Your task to perform on an android device: What is the speed of a tiger? Image 0: 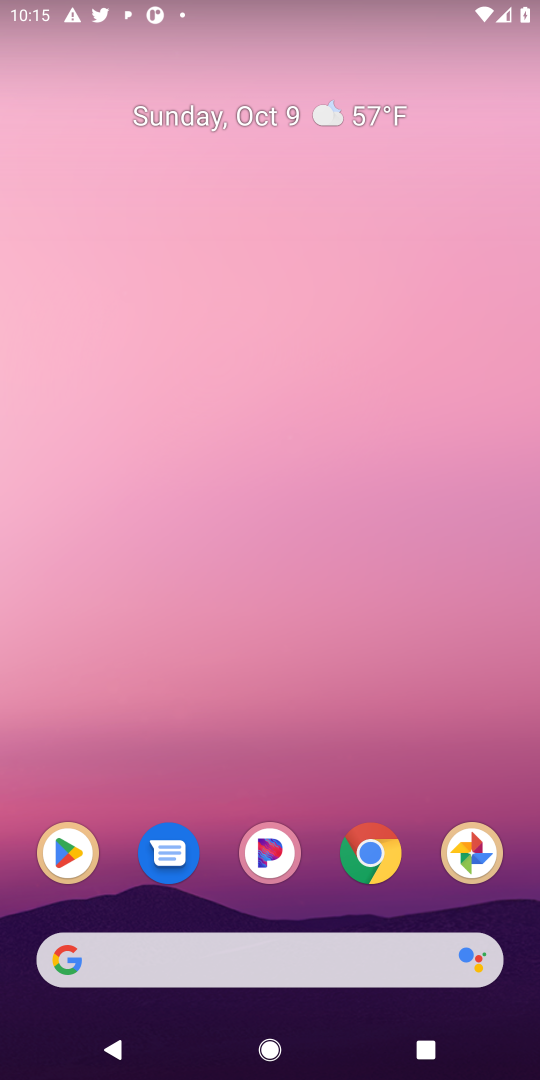
Step 0: click (362, 866)
Your task to perform on an android device: What is the speed of a tiger? Image 1: 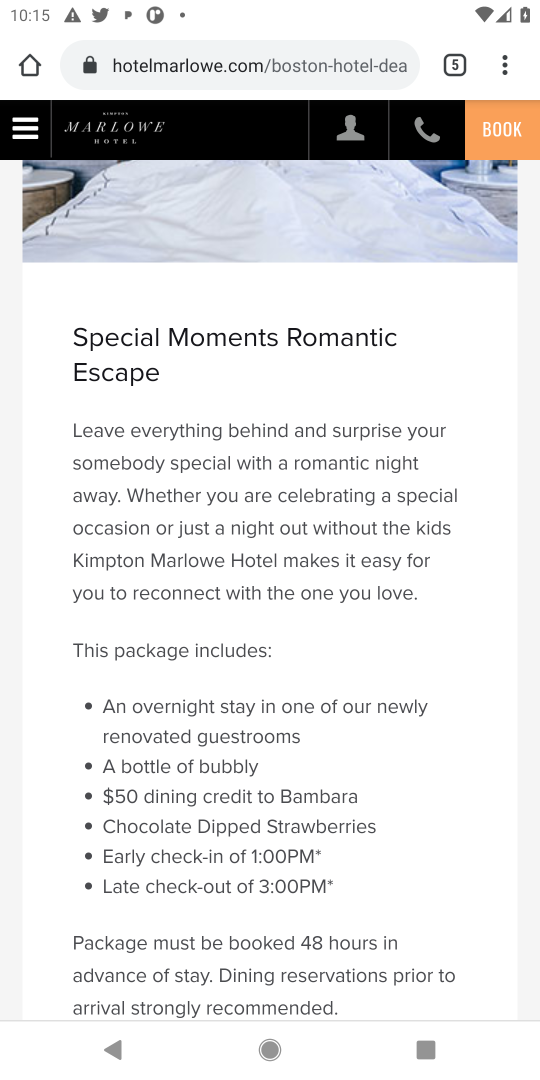
Step 1: click (278, 39)
Your task to perform on an android device: What is the speed of a tiger? Image 2: 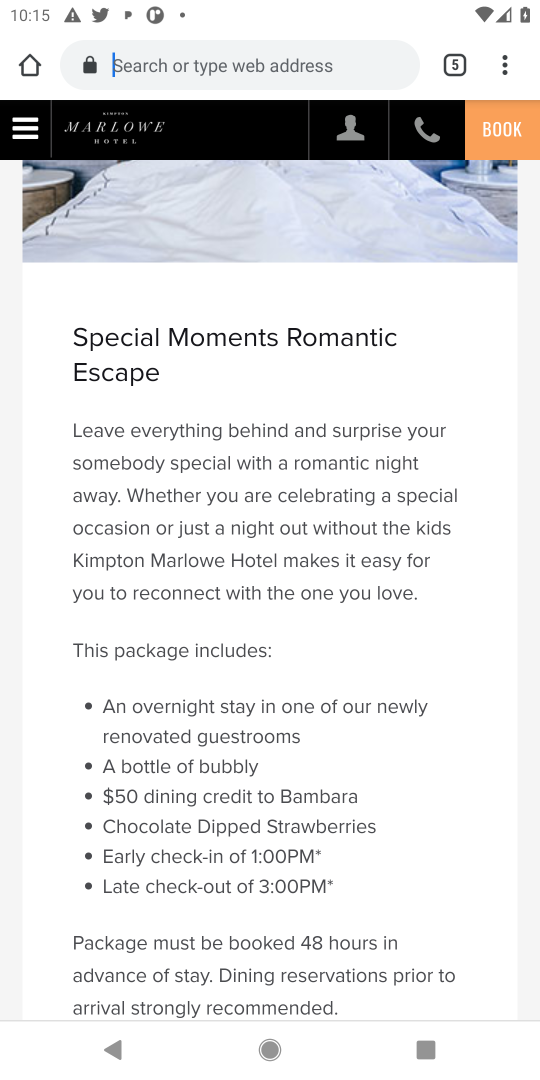
Step 2: click (263, 87)
Your task to perform on an android device: What is the speed of a tiger? Image 3: 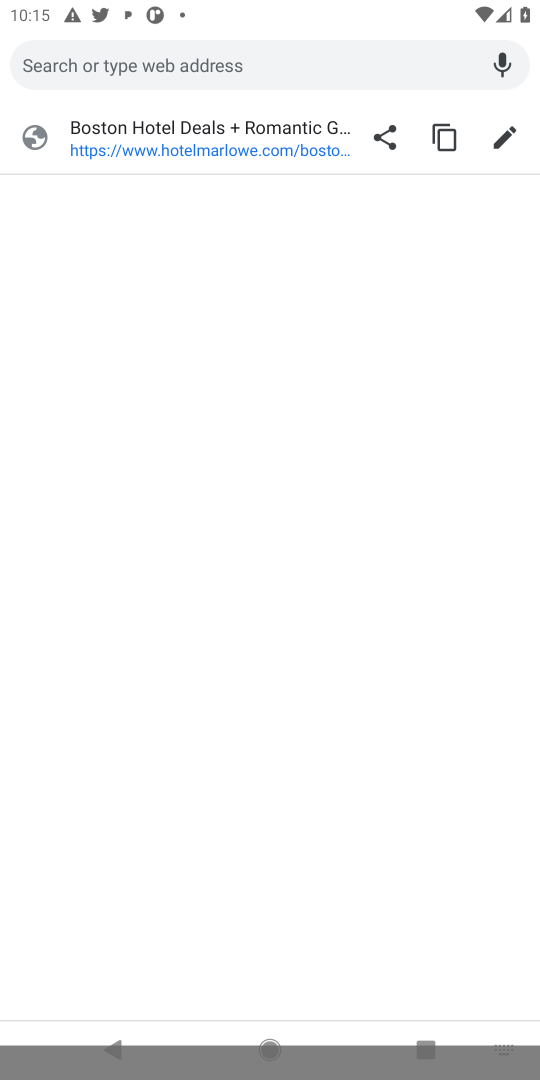
Step 3: click (257, 74)
Your task to perform on an android device: What is the speed of a tiger? Image 4: 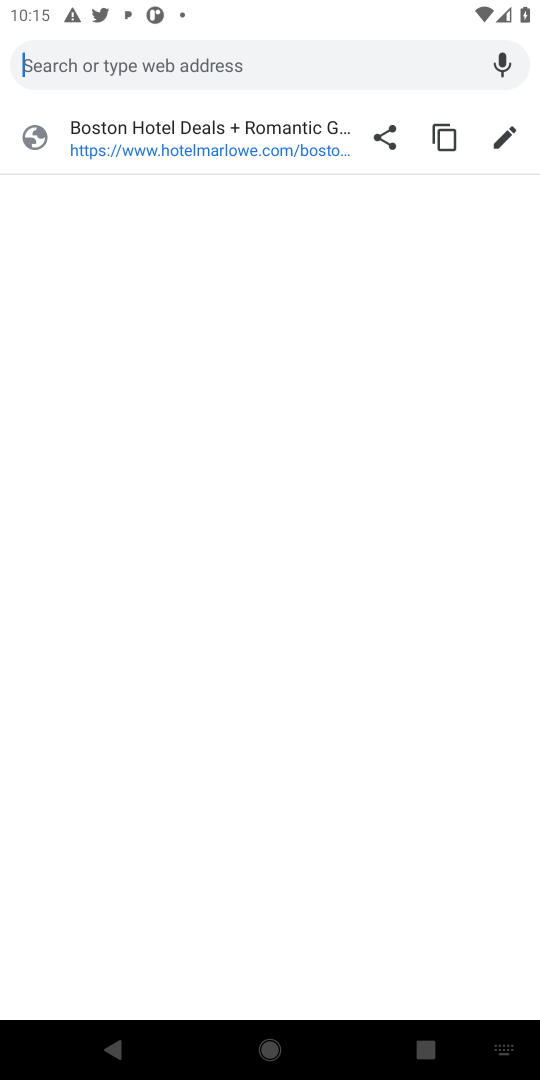
Step 4: type "what is the speed of a tiger"
Your task to perform on an android device: What is the speed of a tiger? Image 5: 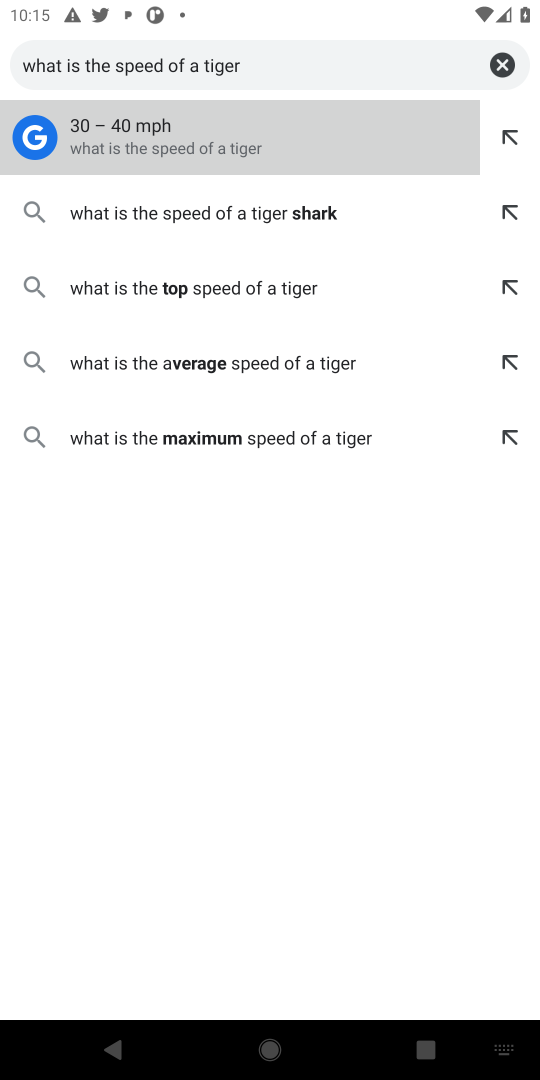
Step 5: type ""
Your task to perform on an android device: What is the speed of a tiger? Image 6: 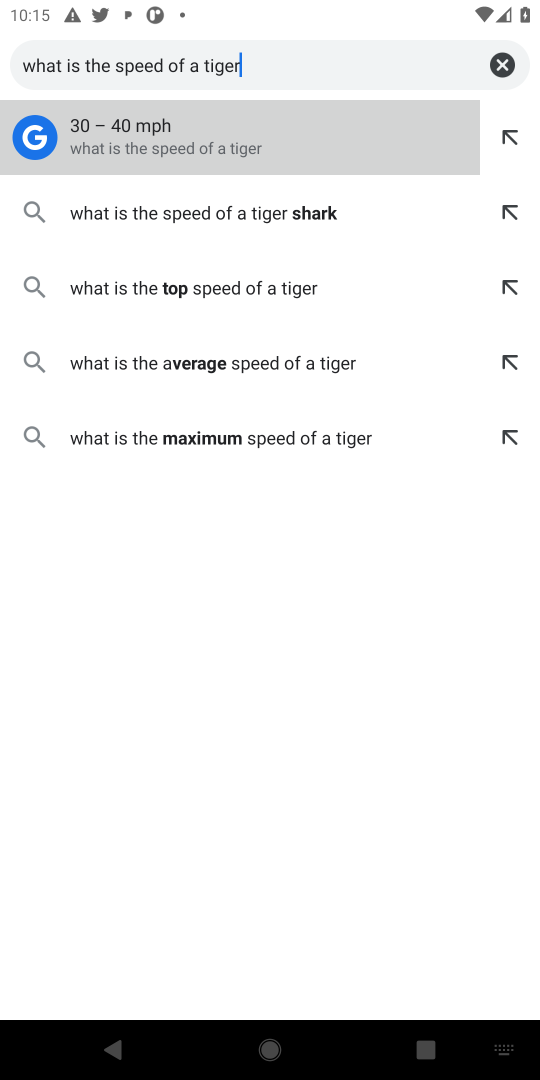
Step 6: press enter
Your task to perform on an android device: What is the speed of a tiger? Image 7: 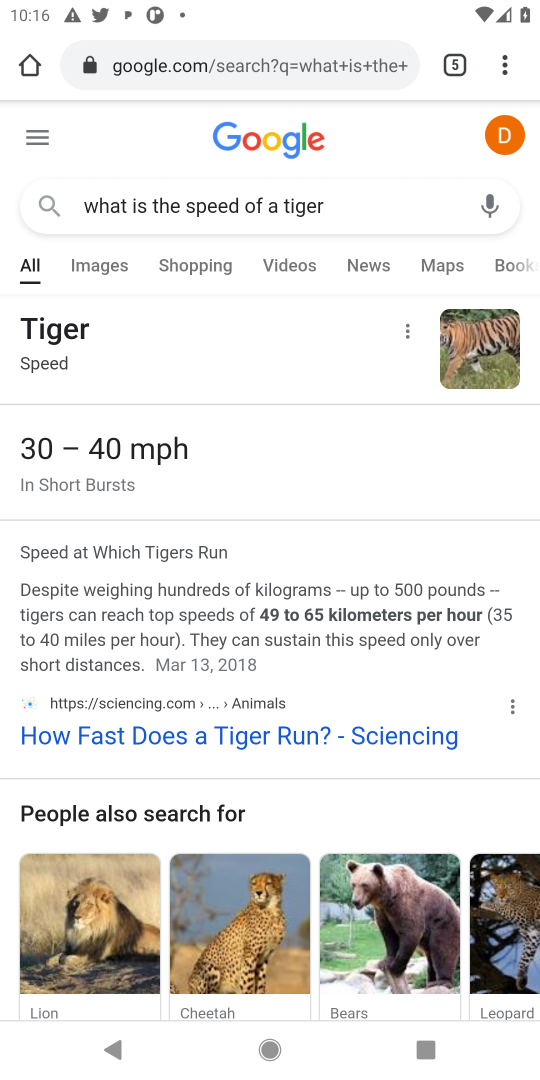
Step 7: drag from (410, 683) to (407, 341)
Your task to perform on an android device: What is the speed of a tiger? Image 8: 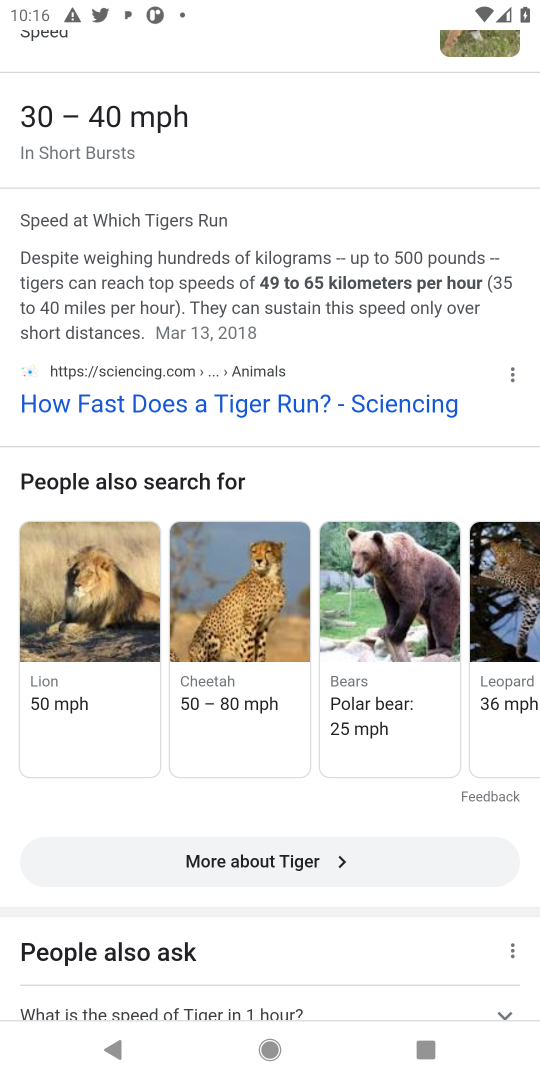
Step 8: drag from (389, 661) to (484, 223)
Your task to perform on an android device: What is the speed of a tiger? Image 9: 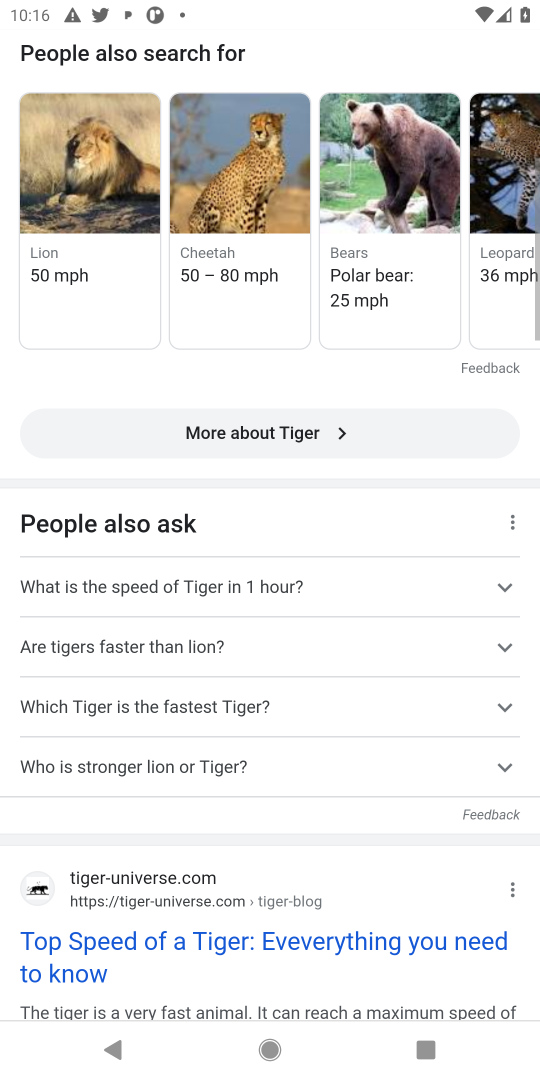
Step 9: drag from (389, 680) to (451, 168)
Your task to perform on an android device: What is the speed of a tiger? Image 10: 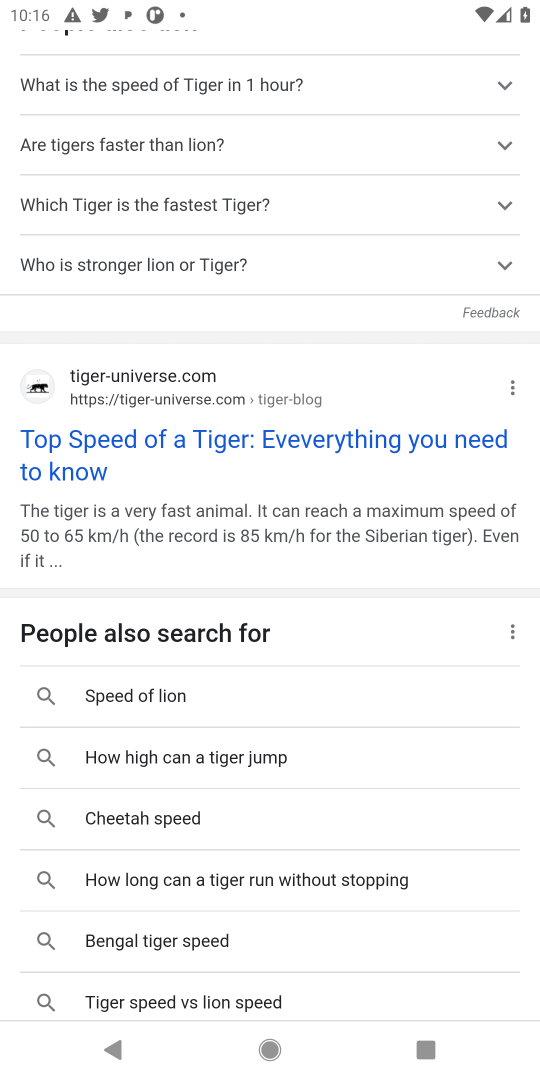
Step 10: drag from (292, 156) to (291, 960)
Your task to perform on an android device: What is the speed of a tiger? Image 11: 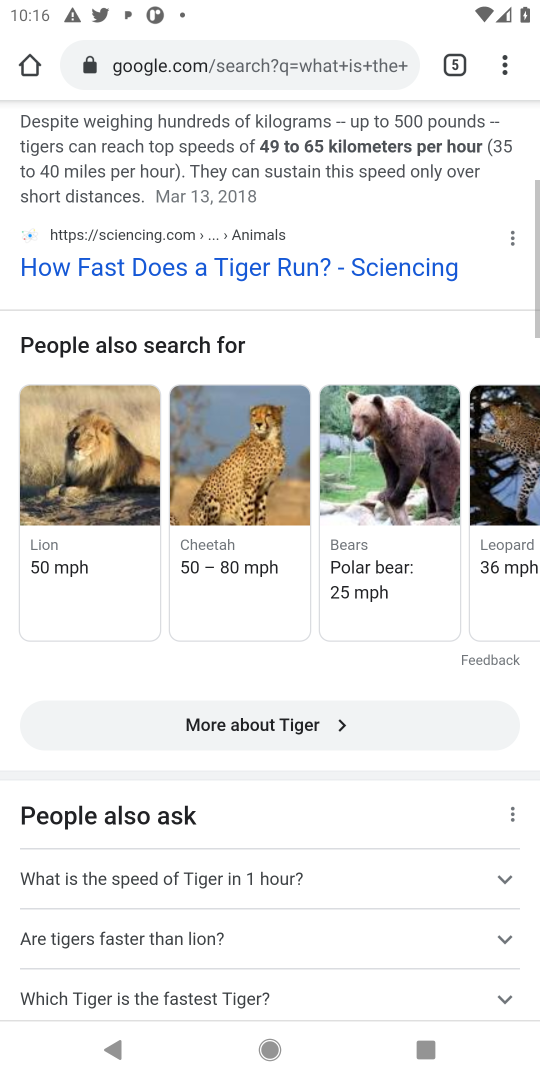
Step 11: drag from (259, 293) to (270, 816)
Your task to perform on an android device: What is the speed of a tiger? Image 12: 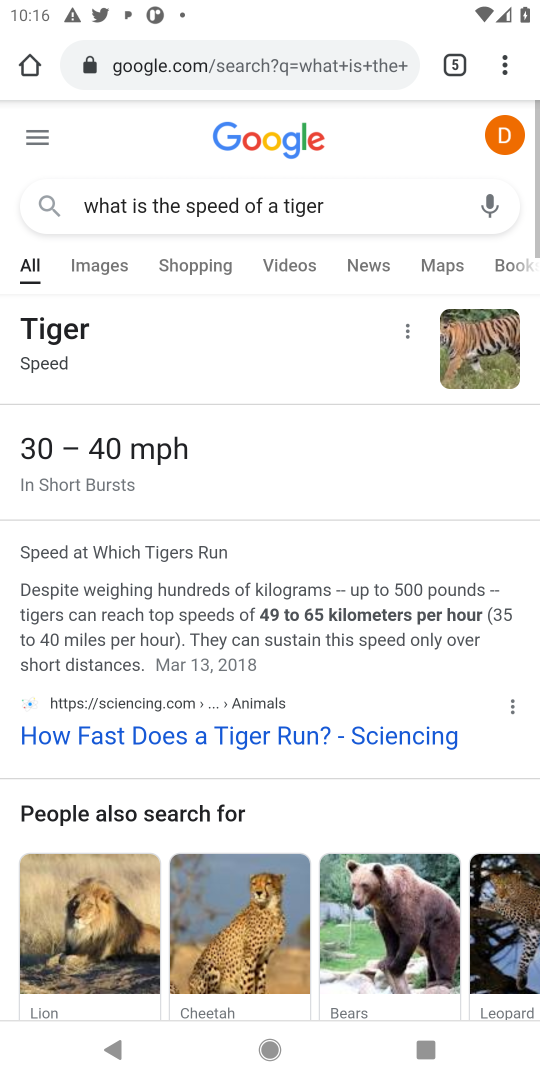
Step 12: drag from (263, 388) to (250, 615)
Your task to perform on an android device: What is the speed of a tiger? Image 13: 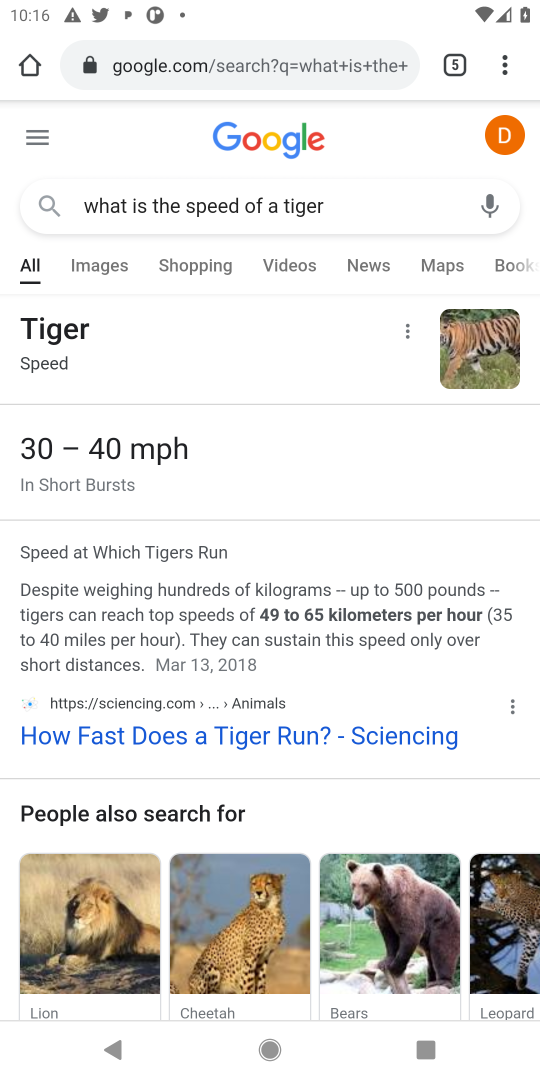
Step 13: drag from (112, 362) to (147, 886)
Your task to perform on an android device: What is the speed of a tiger? Image 14: 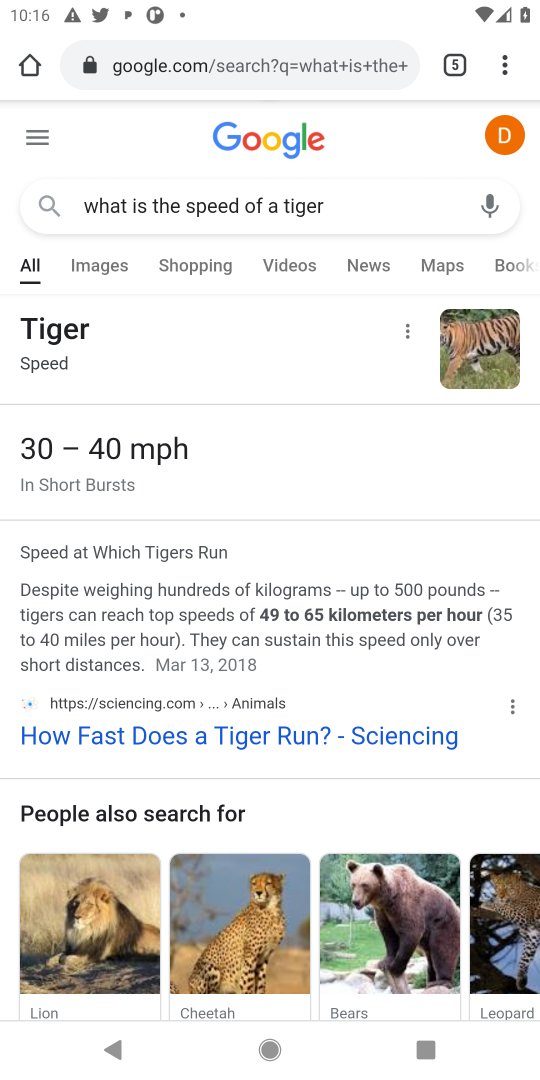
Step 14: click (176, 727)
Your task to perform on an android device: What is the speed of a tiger? Image 15: 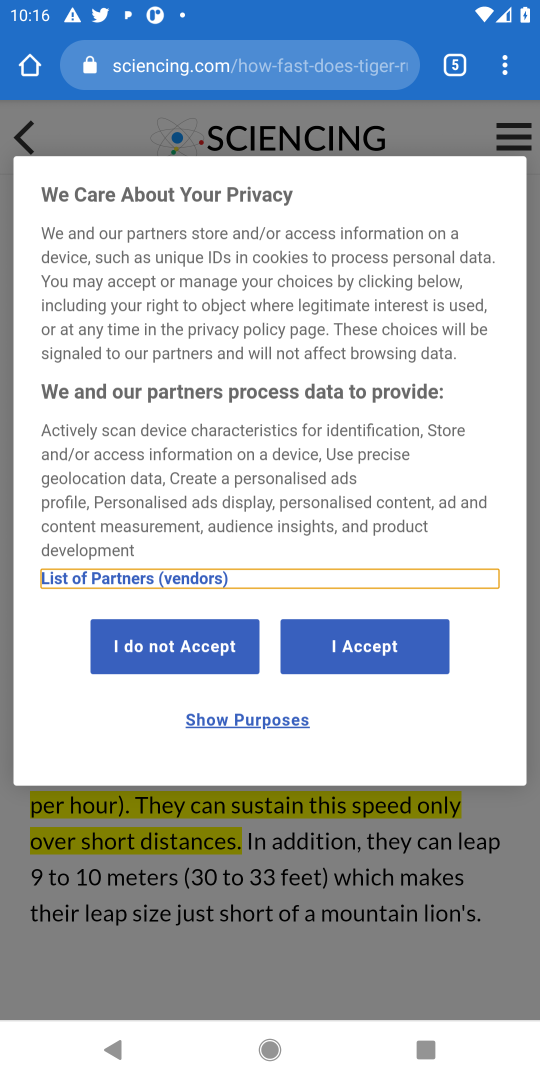
Step 15: drag from (203, 831) to (213, 548)
Your task to perform on an android device: What is the speed of a tiger? Image 16: 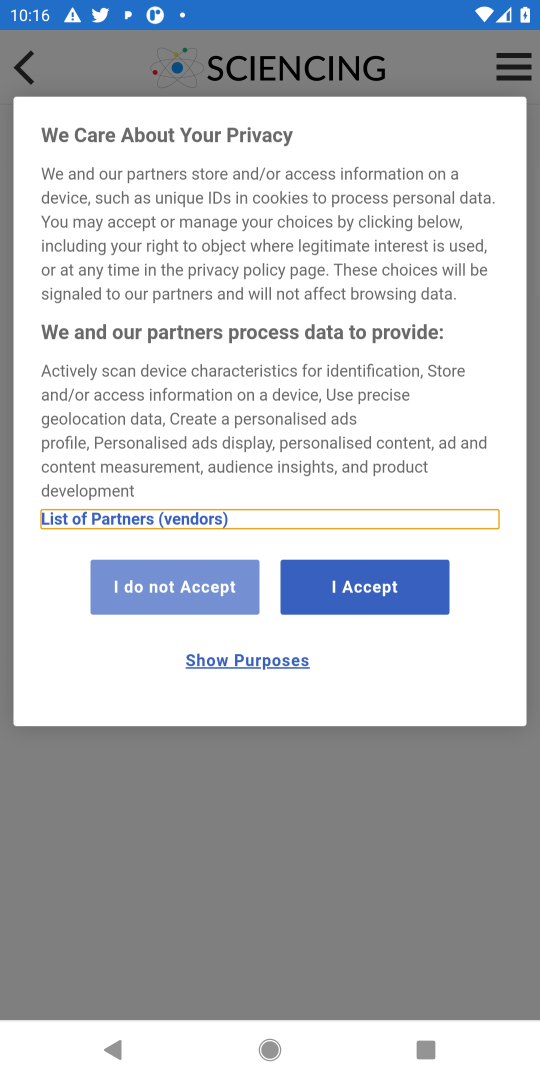
Step 16: click (201, 663)
Your task to perform on an android device: What is the speed of a tiger? Image 17: 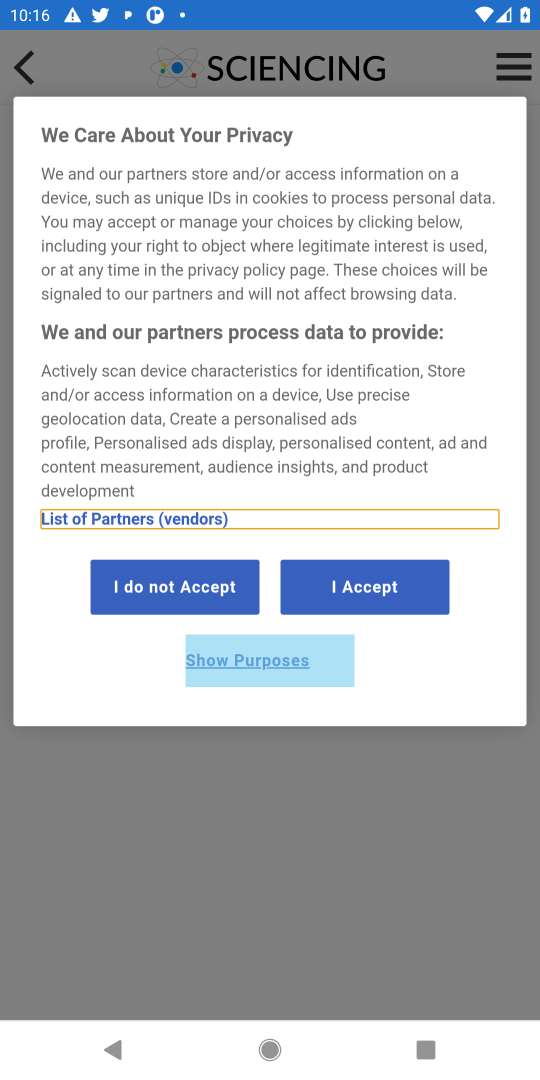
Step 17: click (188, 569)
Your task to perform on an android device: What is the speed of a tiger? Image 18: 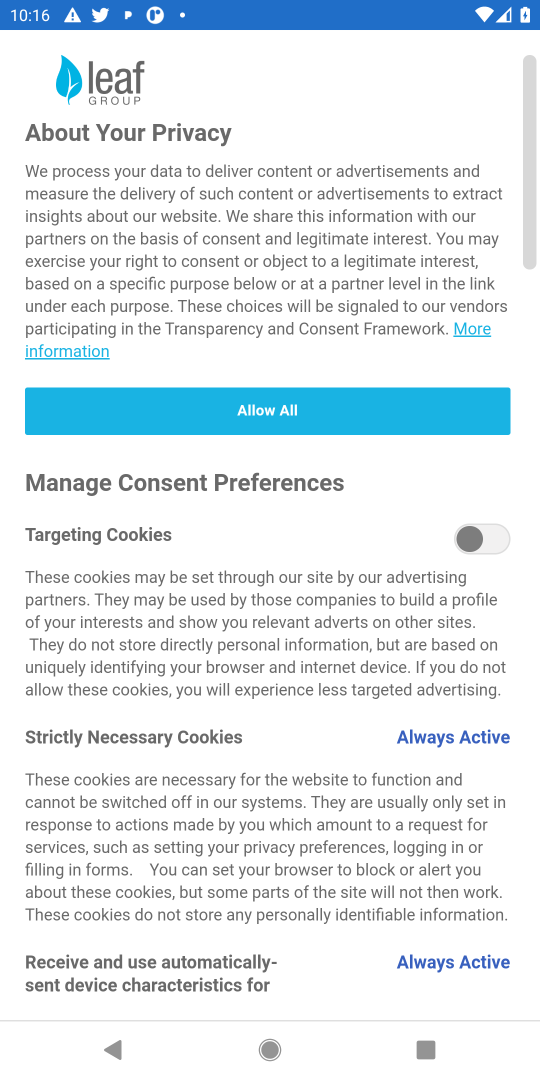
Step 18: drag from (299, 610) to (290, 324)
Your task to perform on an android device: What is the speed of a tiger? Image 19: 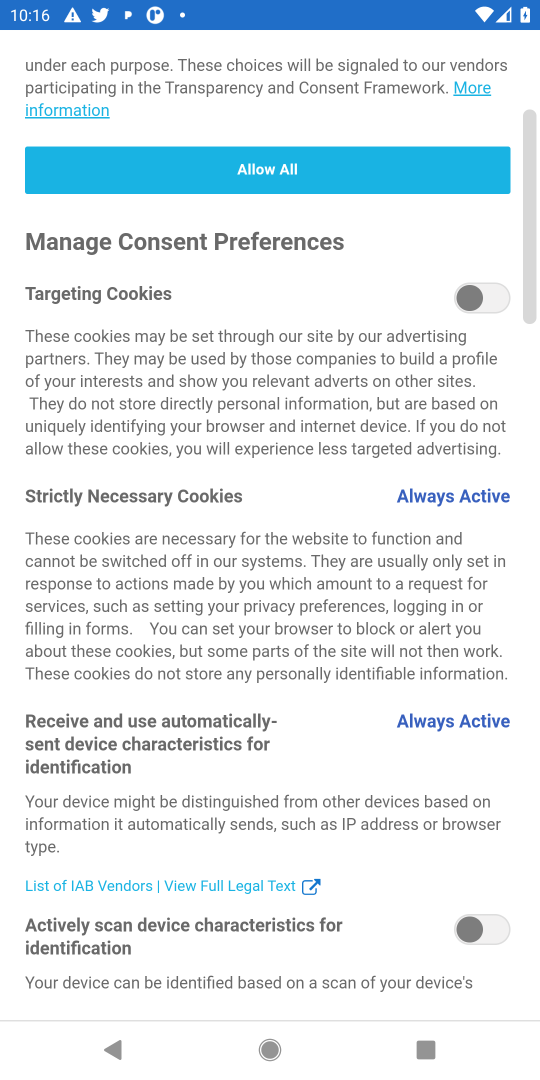
Step 19: click (290, 422)
Your task to perform on an android device: What is the speed of a tiger? Image 20: 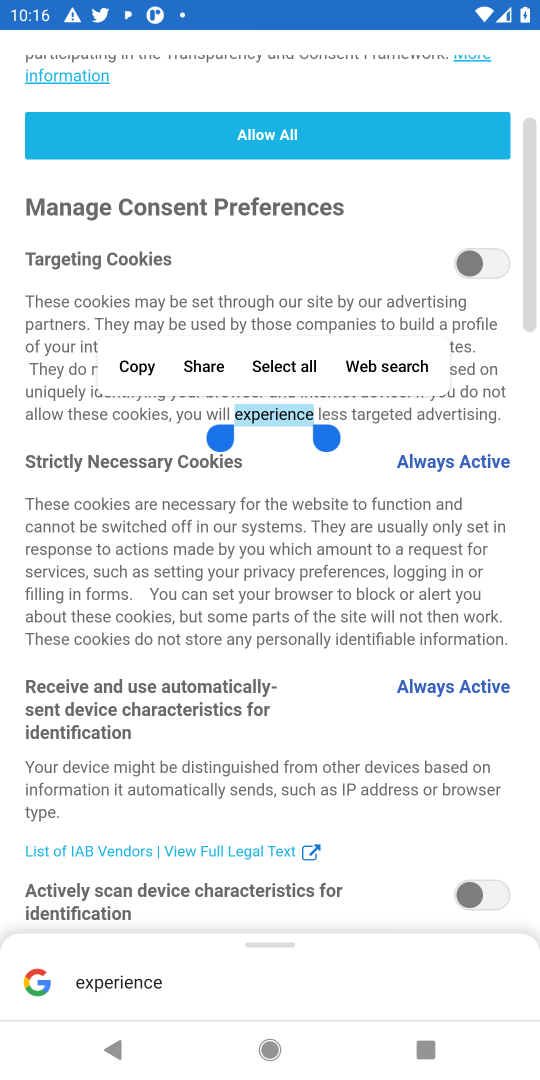
Step 20: click (246, 128)
Your task to perform on an android device: What is the speed of a tiger? Image 21: 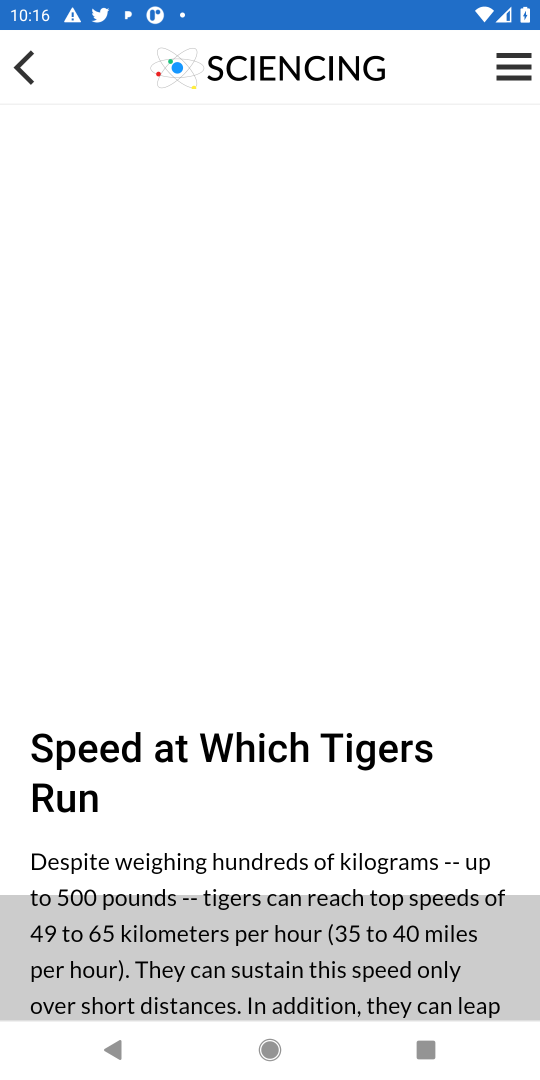
Step 21: drag from (345, 164) to (396, 203)
Your task to perform on an android device: What is the speed of a tiger? Image 22: 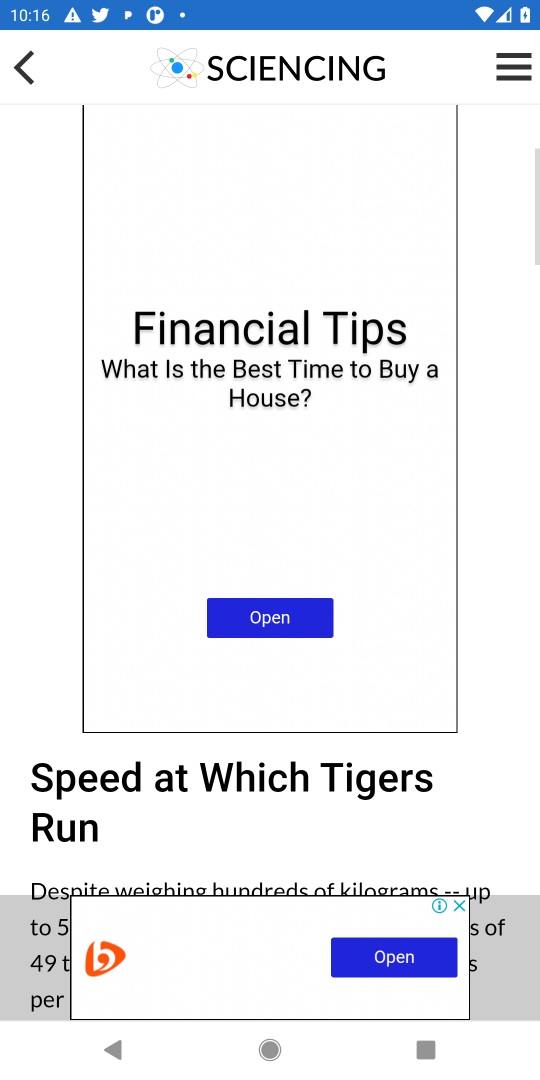
Step 22: drag from (358, 599) to (328, 187)
Your task to perform on an android device: What is the speed of a tiger? Image 23: 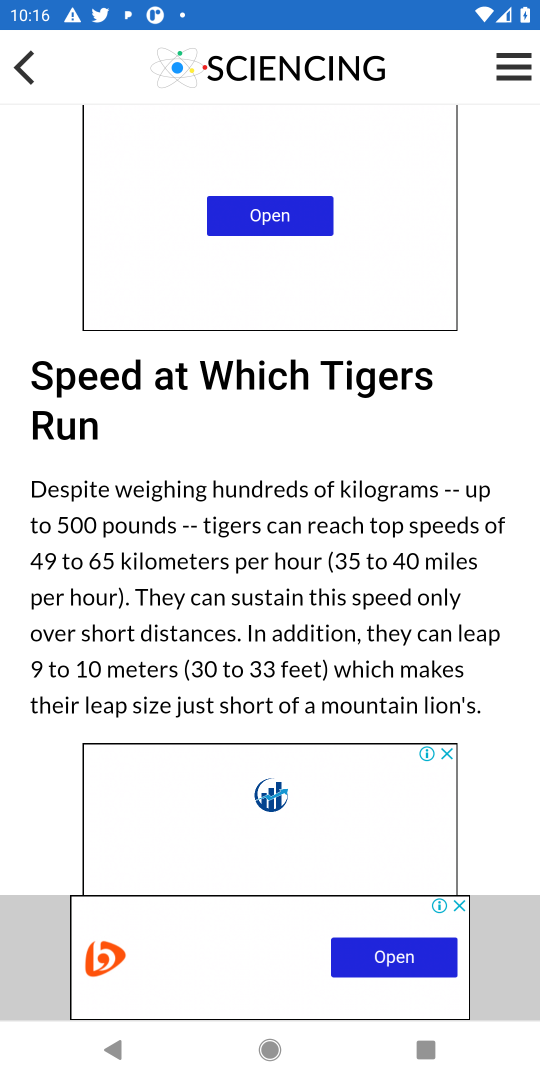
Step 23: drag from (386, 709) to (349, 40)
Your task to perform on an android device: What is the speed of a tiger? Image 24: 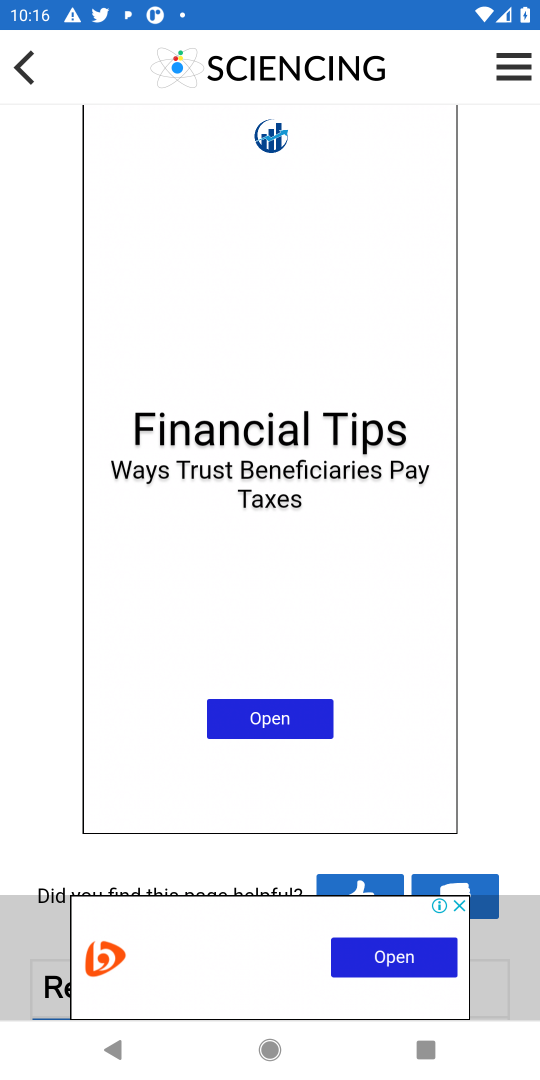
Step 24: drag from (393, 872) to (404, 142)
Your task to perform on an android device: What is the speed of a tiger? Image 25: 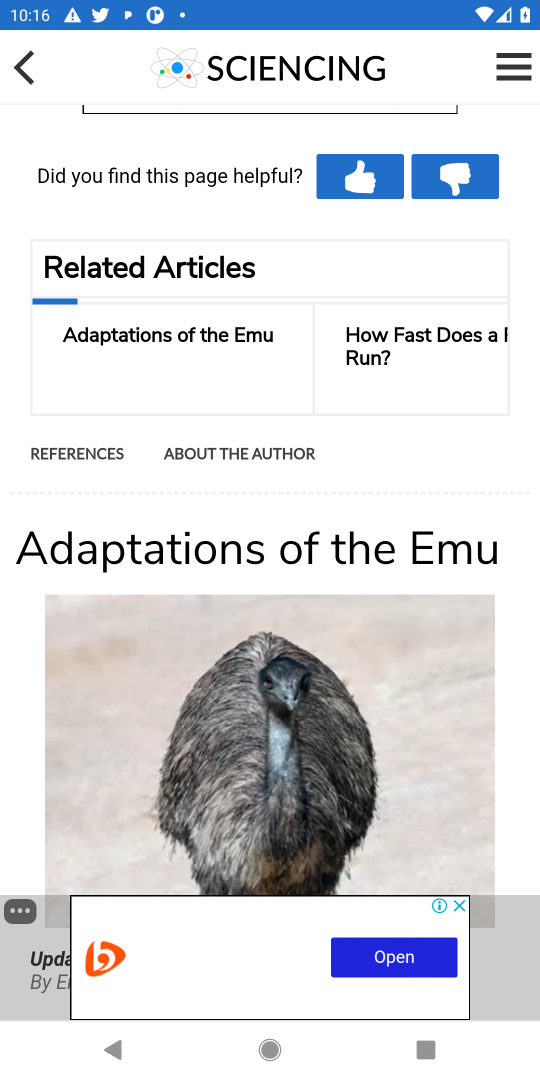
Step 25: drag from (352, 625) to (332, 101)
Your task to perform on an android device: What is the speed of a tiger? Image 26: 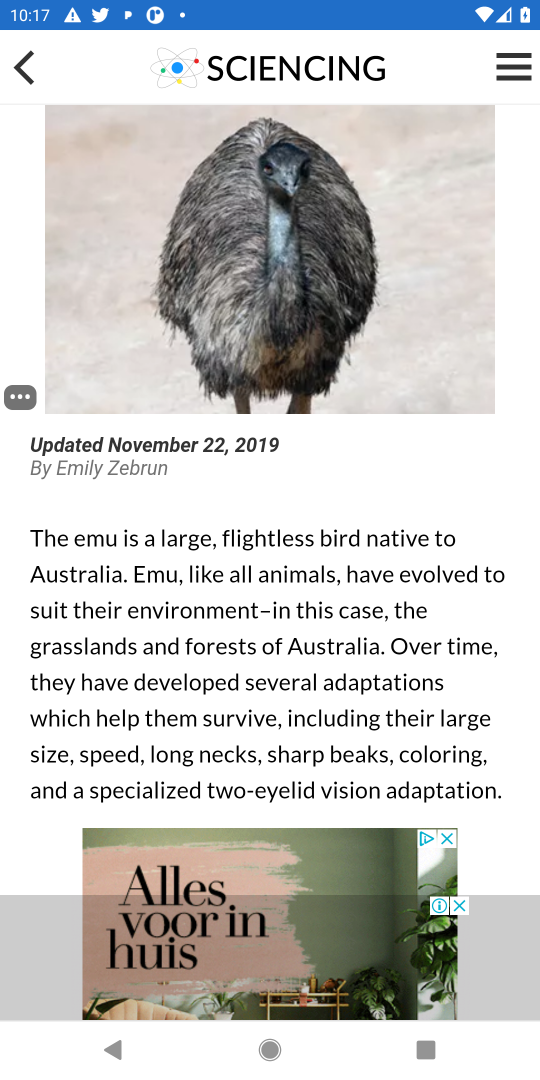
Step 26: press back button
Your task to perform on an android device: What is the speed of a tiger? Image 27: 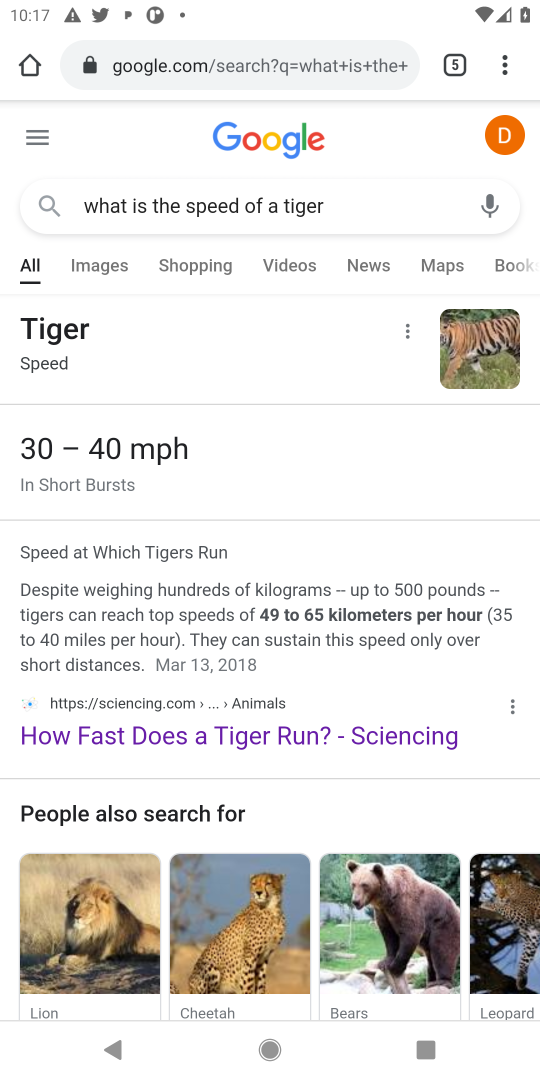
Step 27: drag from (426, 749) to (374, 220)
Your task to perform on an android device: What is the speed of a tiger? Image 28: 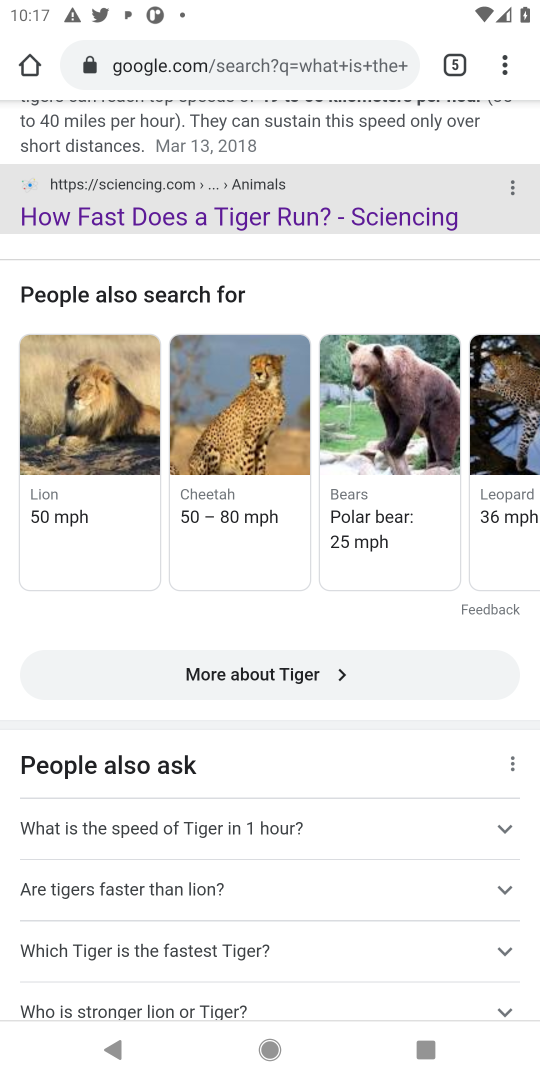
Step 28: drag from (332, 764) to (332, 145)
Your task to perform on an android device: What is the speed of a tiger? Image 29: 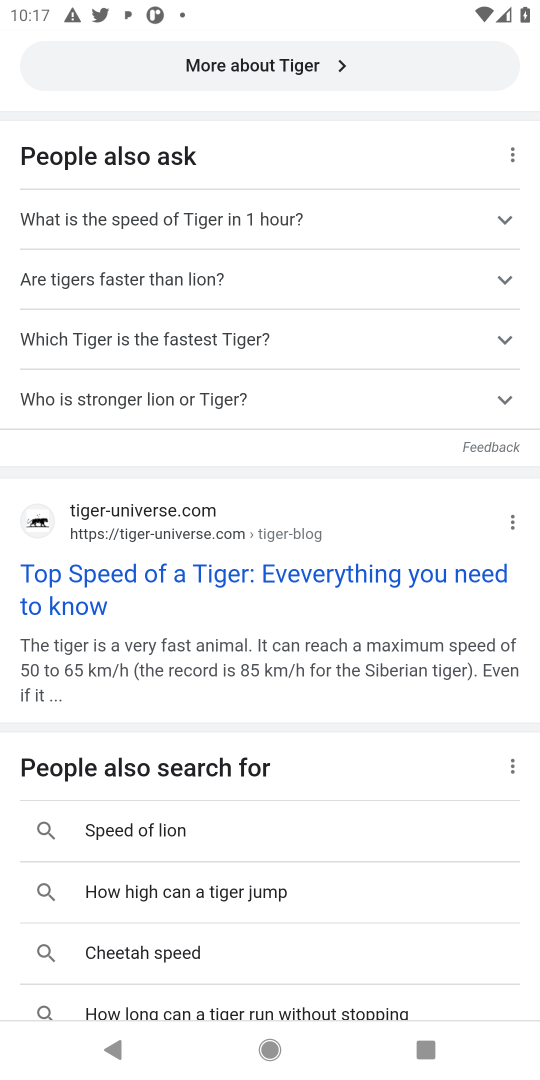
Step 29: click (252, 582)
Your task to perform on an android device: What is the speed of a tiger? Image 30: 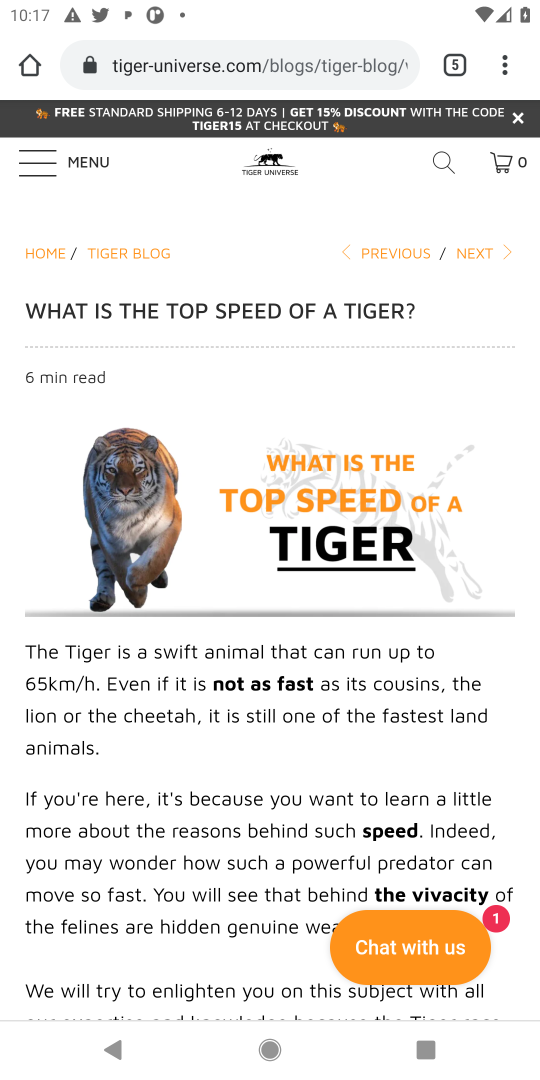
Step 30: drag from (350, 846) to (359, 436)
Your task to perform on an android device: What is the speed of a tiger? Image 31: 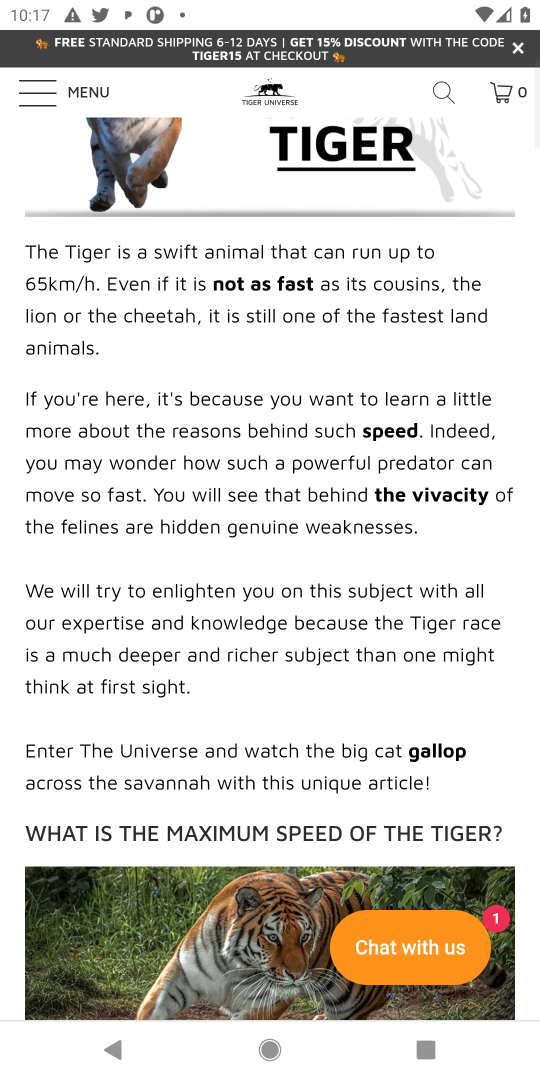
Step 31: drag from (356, 744) to (306, 366)
Your task to perform on an android device: What is the speed of a tiger? Image 32: 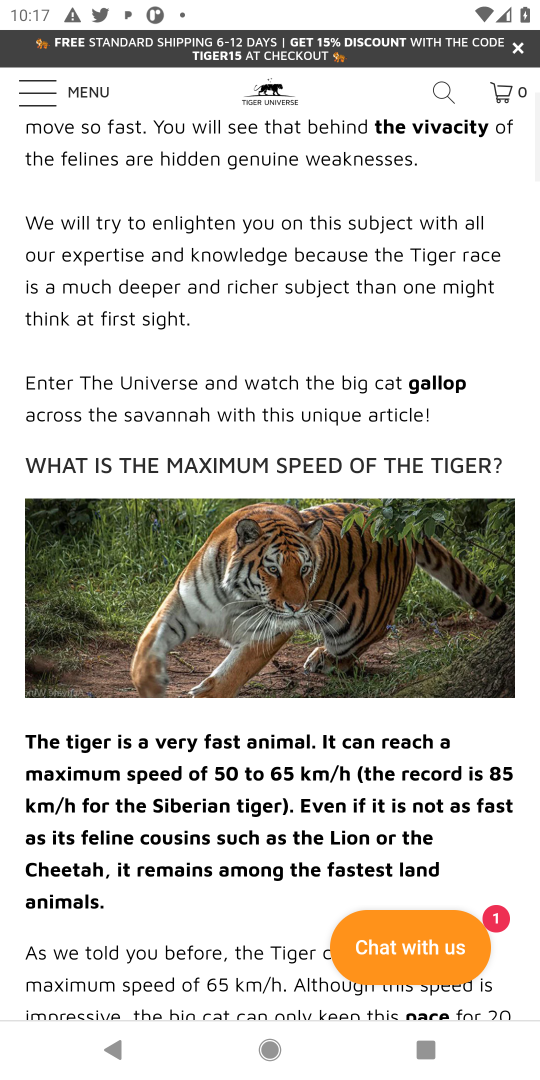
Step 32: drag from (304, 719) to (296, 272)
Your task to perform on an android device: What is the speed of a tiger? Image 33: 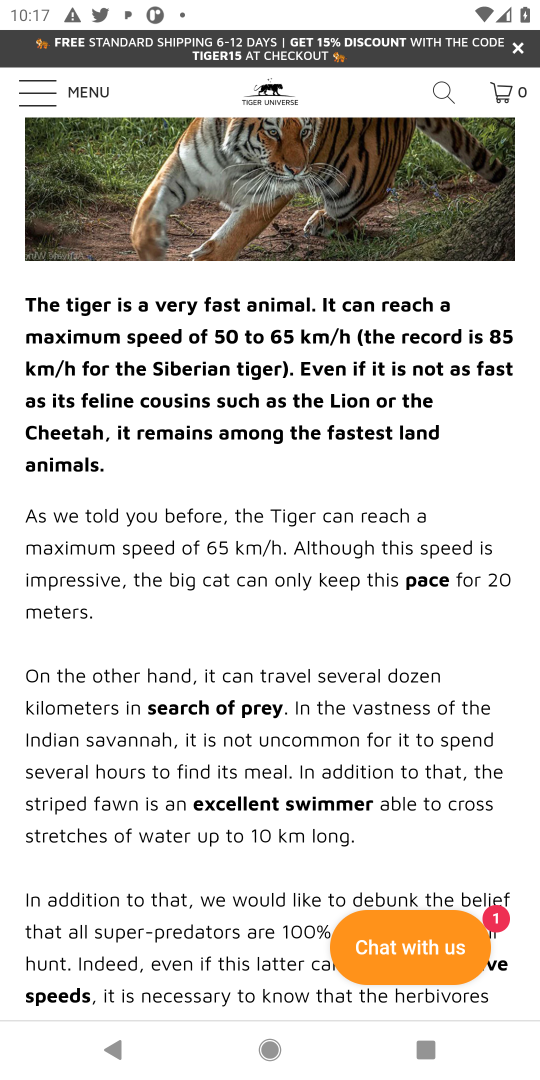
Step 33: drag from (344, 762) to (330, 278)
Your task to perform on an android device: What is the speed of a tiger? Image 34: 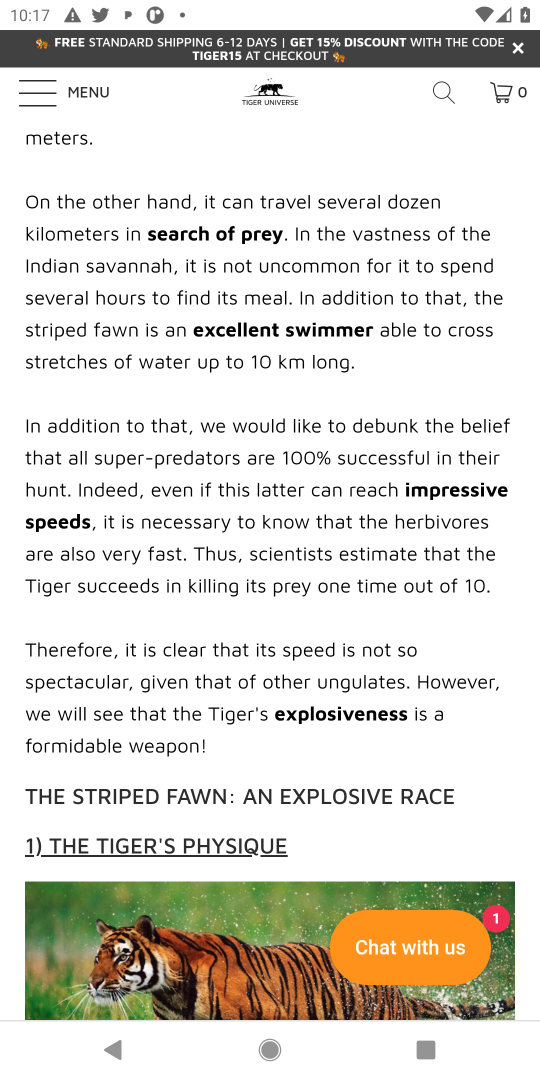
Step 34: drag from (375, 563) to (345, 235)
Your task to perform on an android device: What is the speed of a tiger? Image 35: 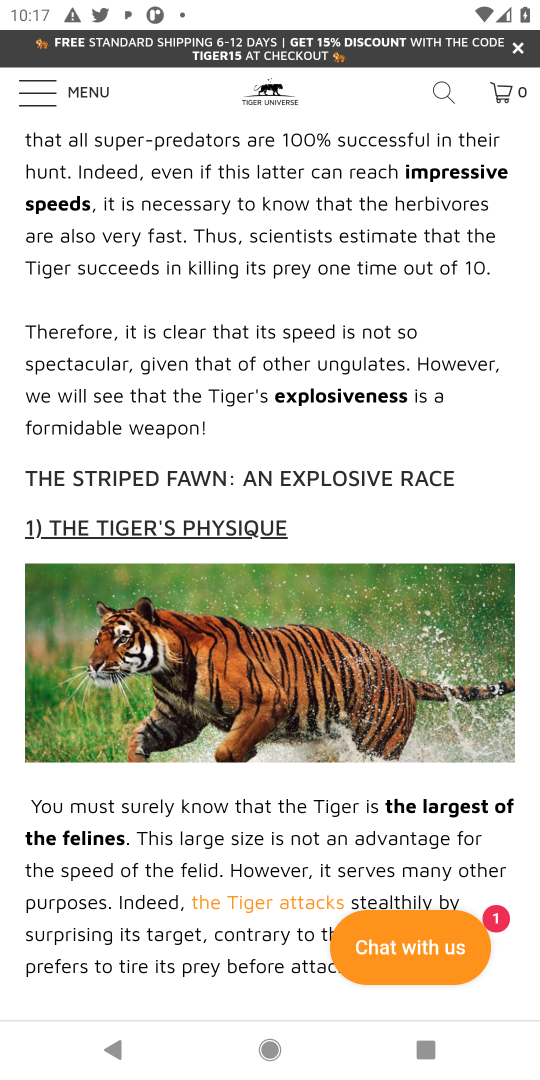
Step 35: drag from (355, 853) to (346, 45)
Your task to perform on an android device: What is the speed of a tiger? Image 36: 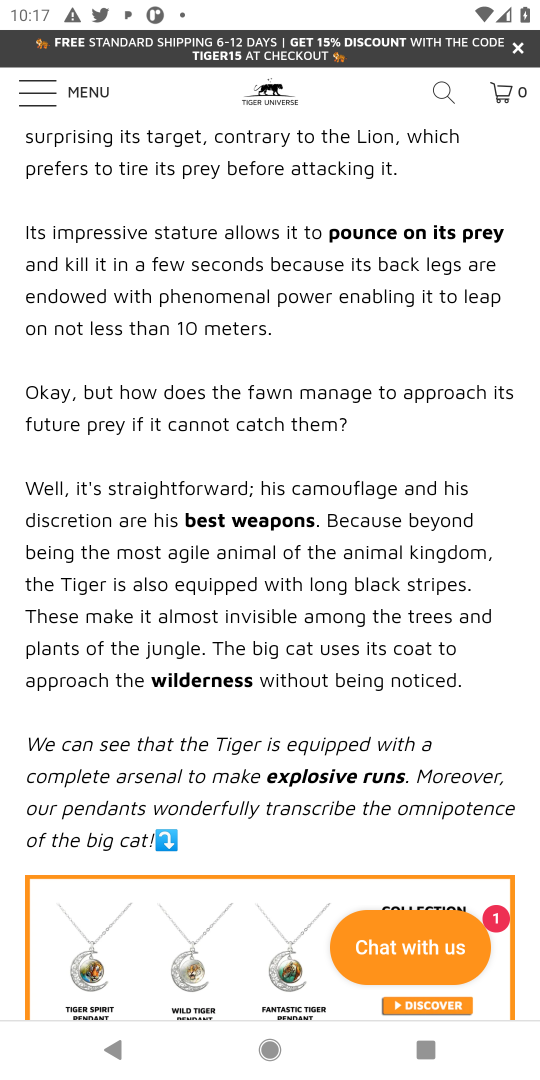
Step 36: drag from (225, 1007) to (284, 61)
Your task to perform on an android device: What is the speed of a tiger? Image 37: 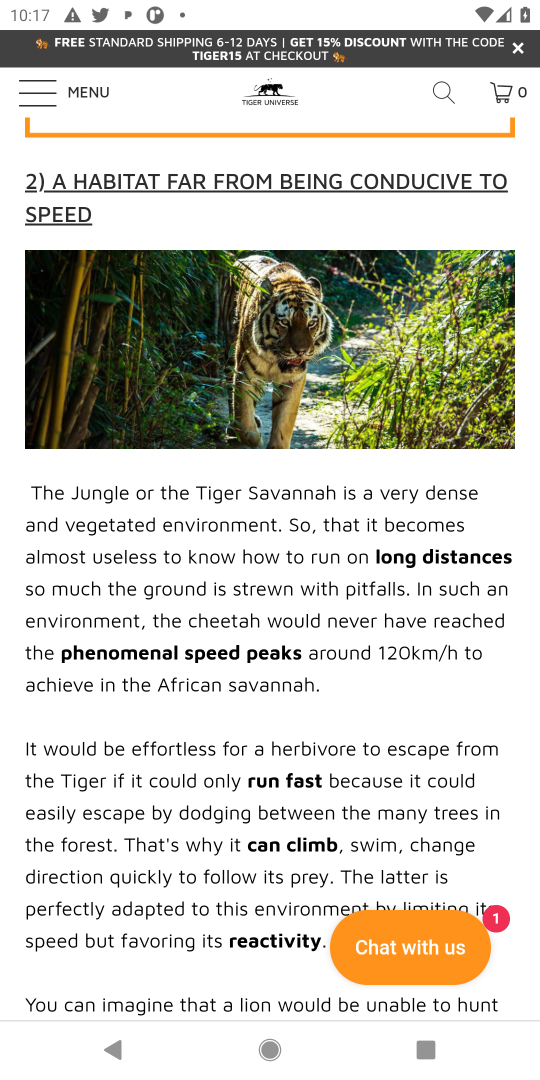
Step 37: drag from (258, 978) to (277, 233)
Your task to perform on an android device: What is the speed of a tiger? Image 38: 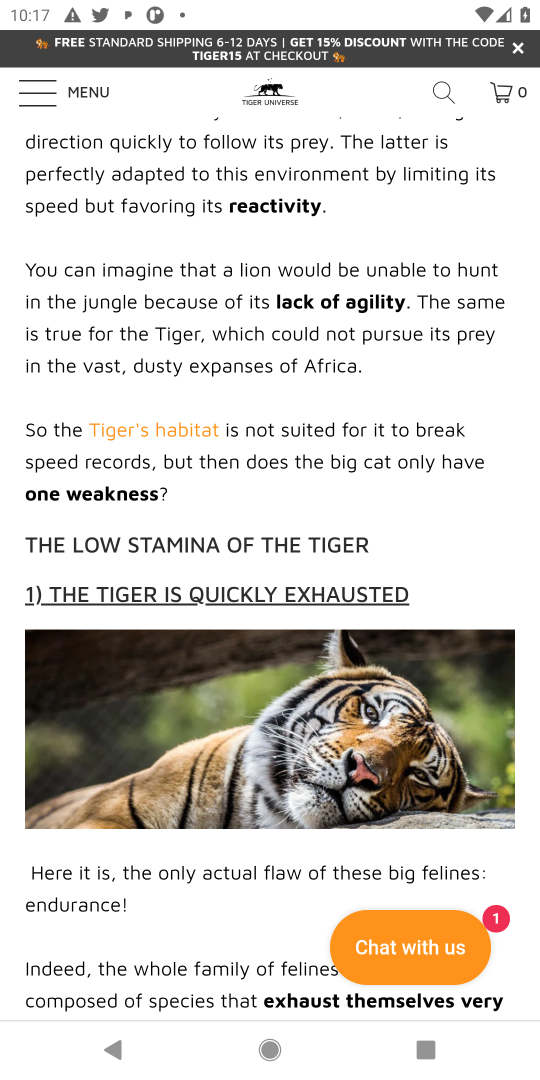
Step 38: drag from (339, 746) to (484, 204)
Your task to perform on an android device: What is the speed of a tiger? Image 39: 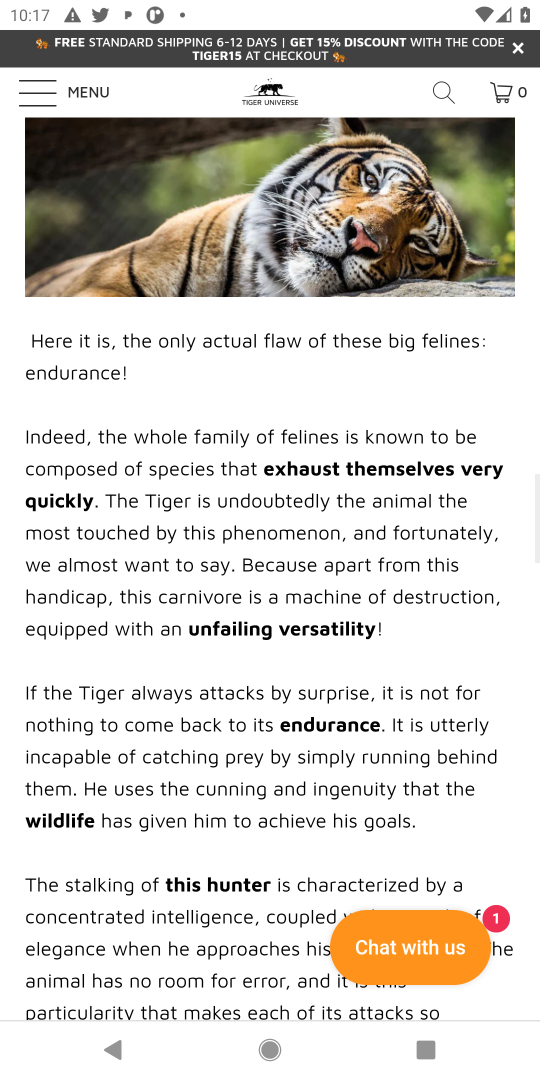
Step 39: drag from (459, 613) to (500, 215)
Your task to perform on an android device: What is the speed of a tiger? Image 40: 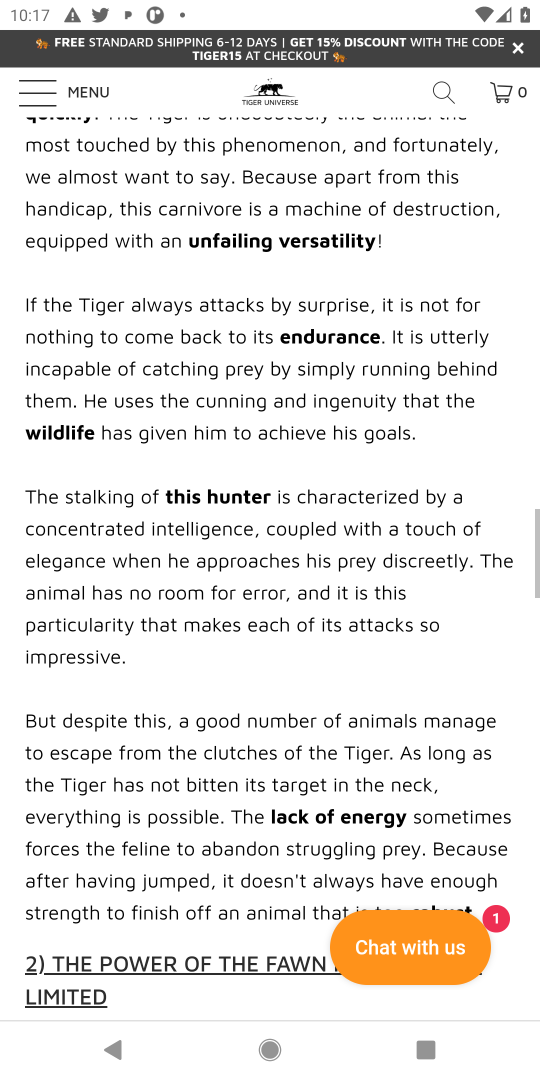
Step 40: drag from (414, 656) to (437, 194)
Your task to perform on an android device: What is the speed of a tiger? Image 41: 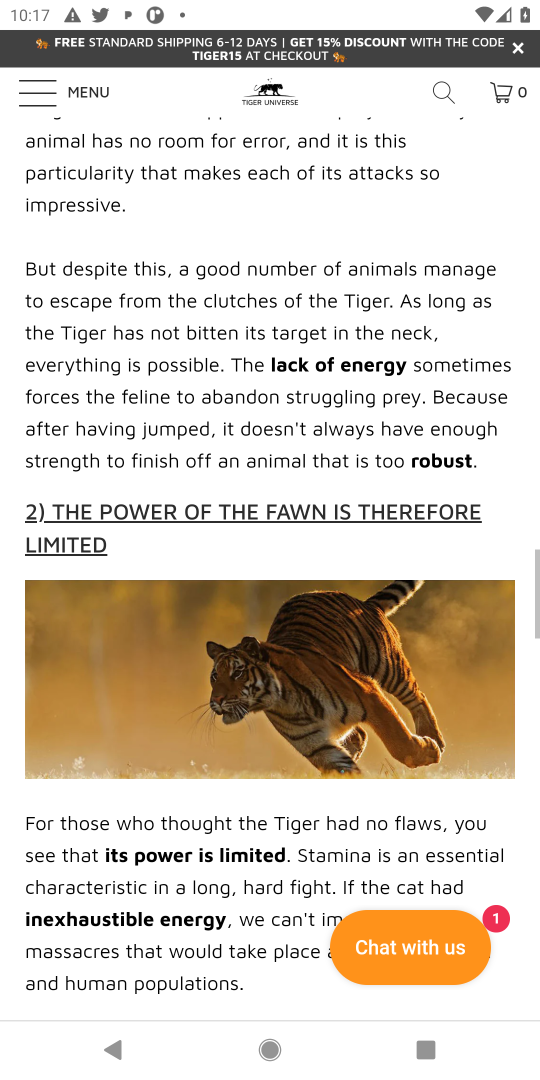
Step 41: drag from (421, 460) to (429, 312)
Your task to perform on an android device: What is the speed of a tiger? Image 42: 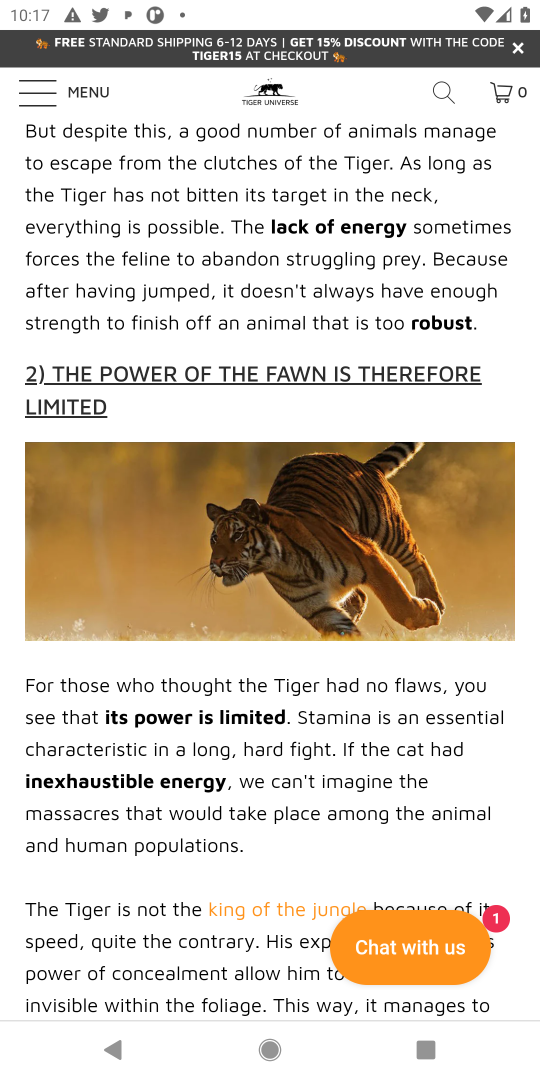
Step 42: drag from (315, 811) to (369, 59)
Your task to perform on an android device: What is the speed of a tiger? Image 43: 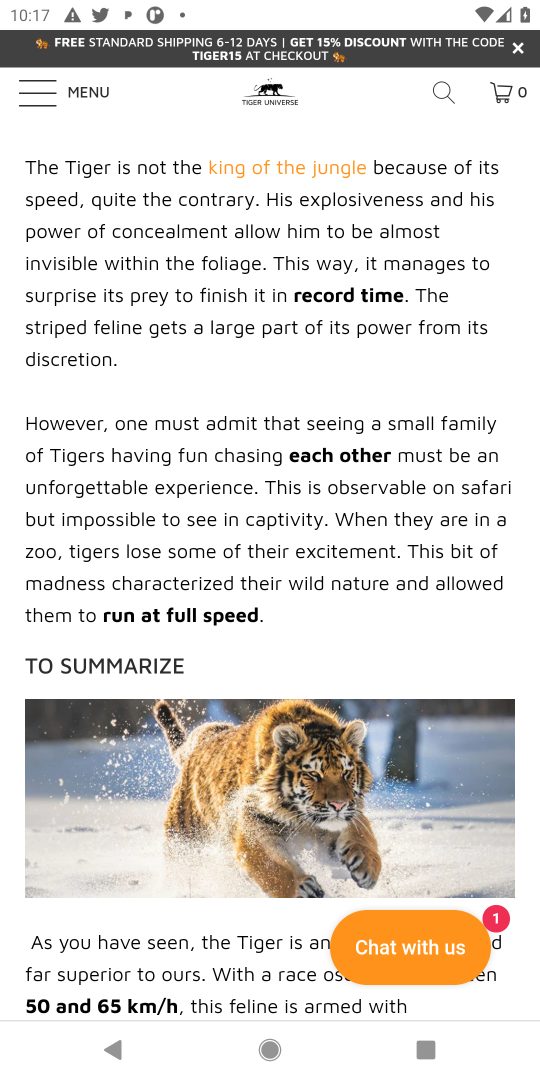
Step 43: drag from (278, 934) to (315, 185)
Your task to perform on an android device: What is the speed of a tiger? Image 44: 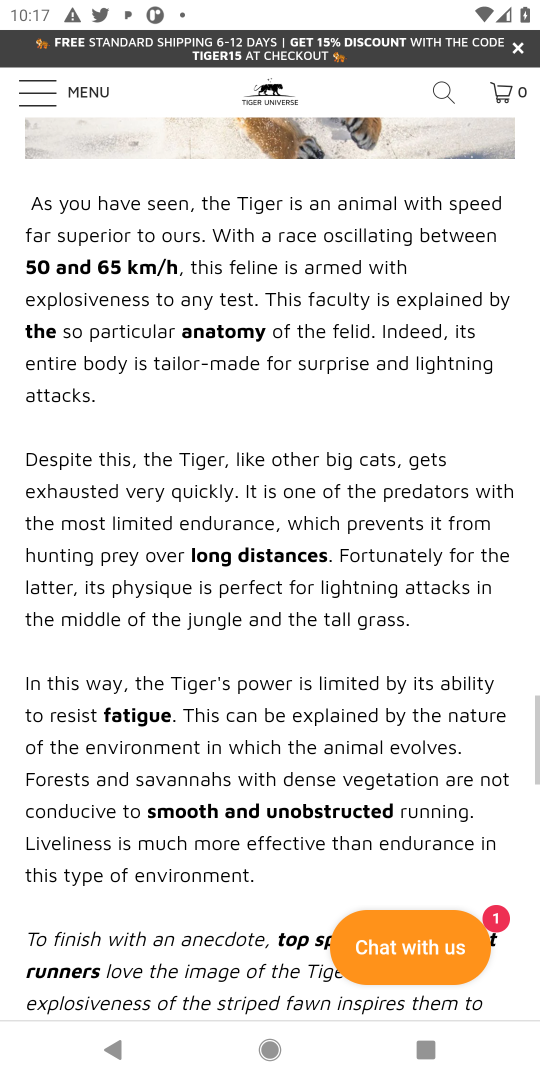
Step 44: drag from (326, 815) to (356, 335)
Your task to perform on an android device: What is the speed of a tiger? Image 45: 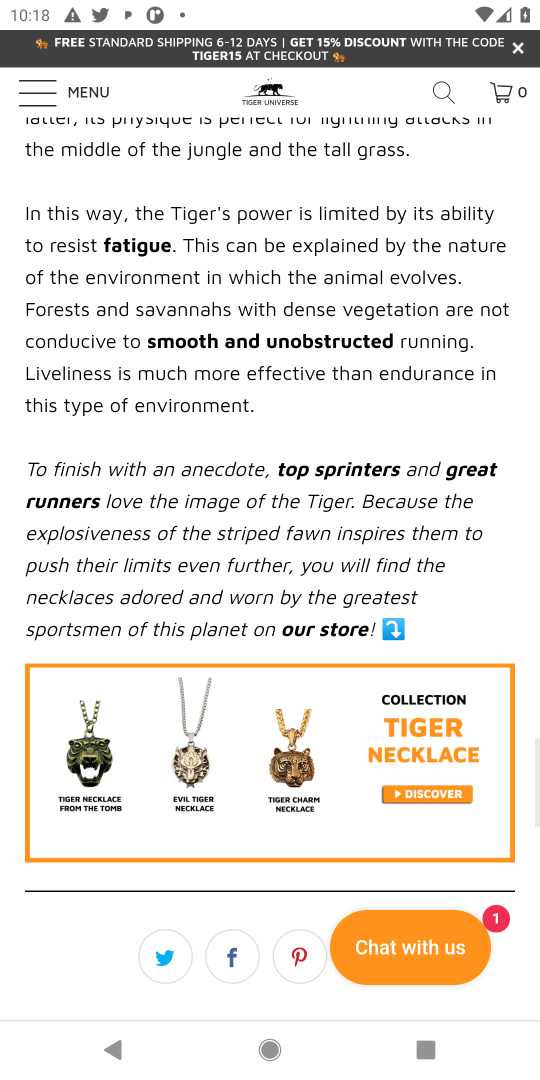
Step 45: drag from (359, 831) to (346, 326)
Your task to perform on an android device: What is the speed of a tiger? Image 46: 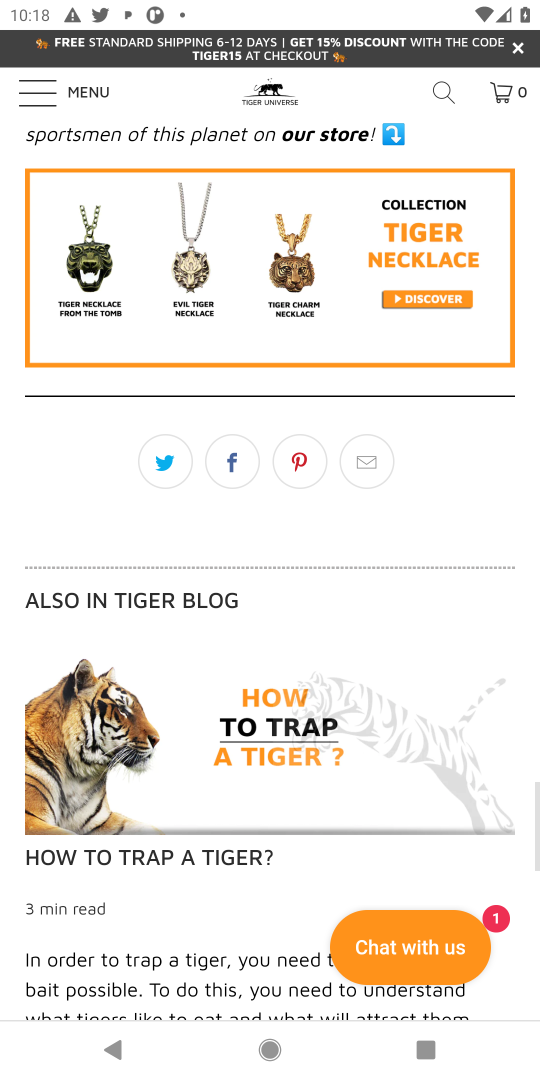
Step 46: press back button
Your task to perform on an android device: What is the speed of a tiger? Image 47: 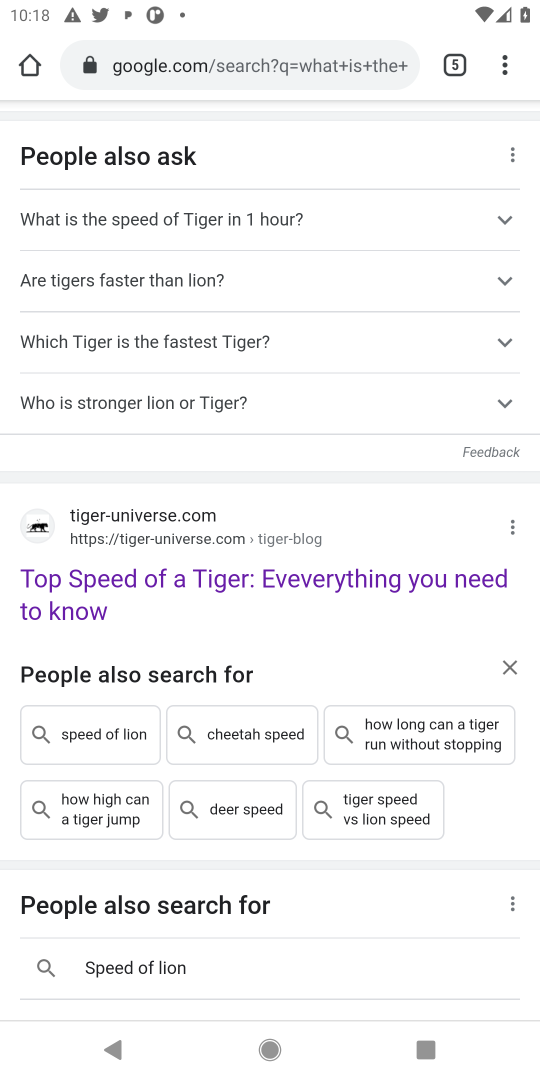
Step 47: drag from (399, 837) to (398, 171)
Your task to perform on an android device: What is the speed of a tiger? Image 48: 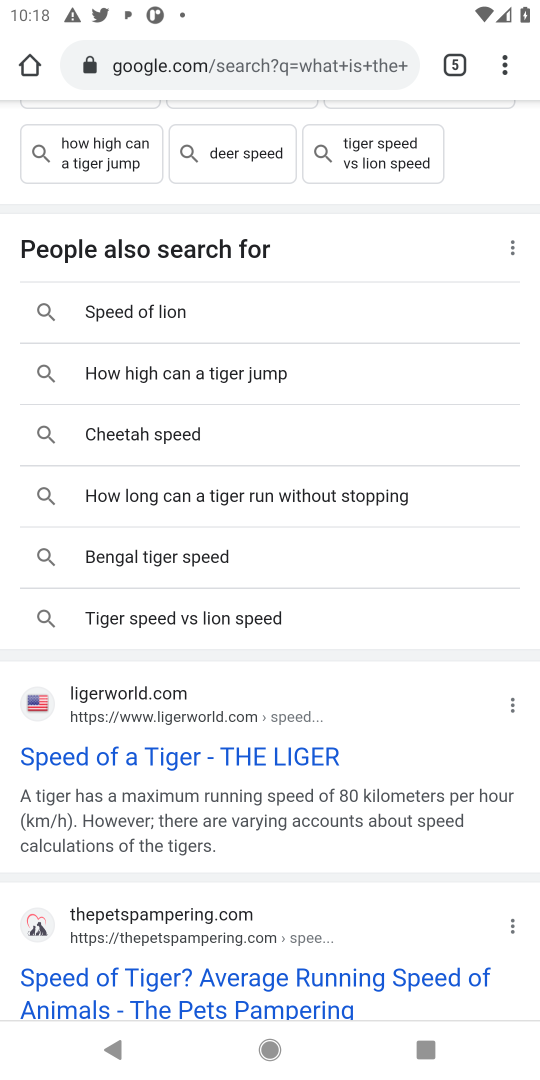
Step 48: click (285, 765)
Your task to perform on an android device: What is the speed of a tiger? Image 49: 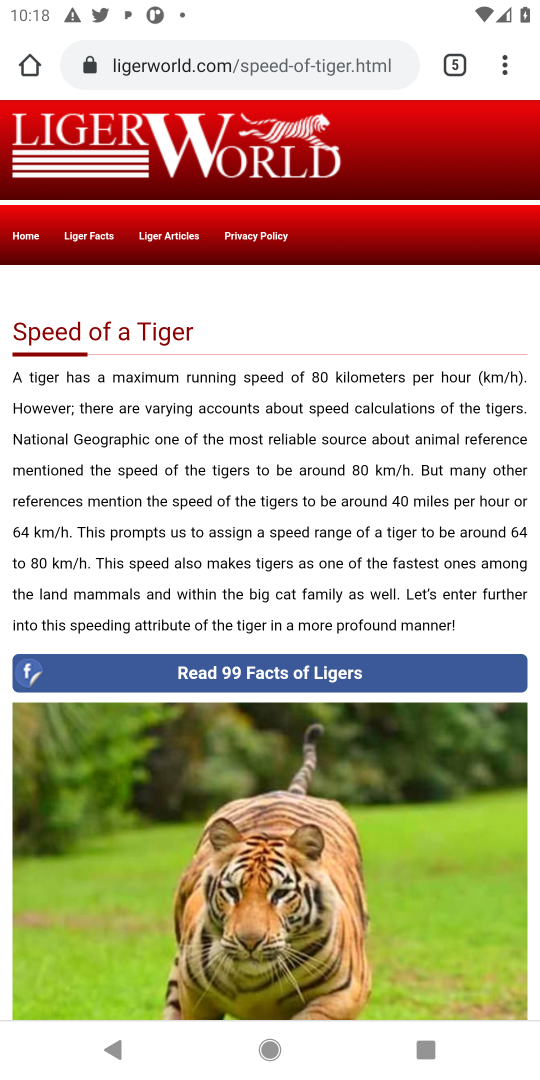
Step 49: task complete